Your task to perform on an android device: turn smart compose on in the gmail app Image 0: 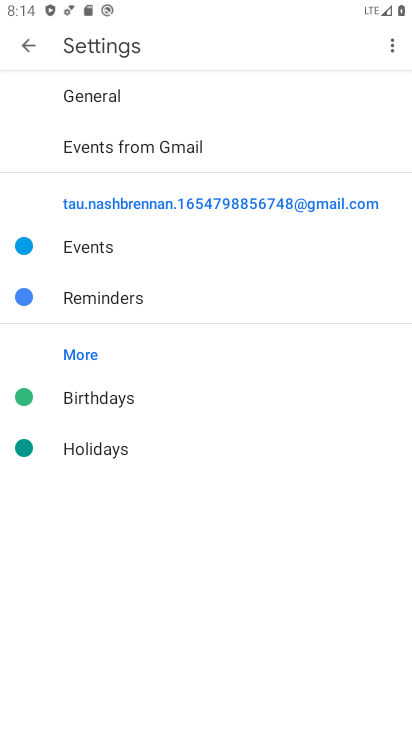
Step 0: press home button
Your task to perform on an android device: turn smart compose on in the gmail app Image 1: 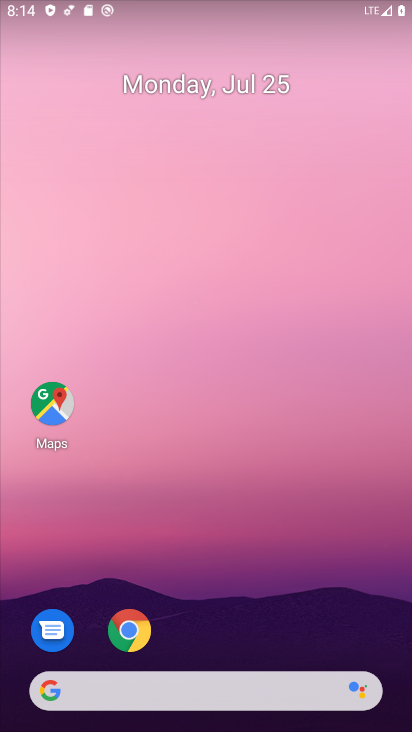
Step 1: drag from (8, 714) to (215, 164)
Your task to perform on an android device: turn smart compose on in the gmail app Image 2: 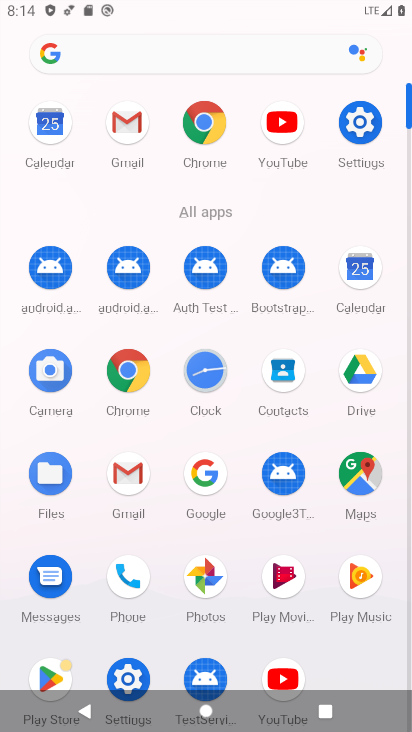
Step 2: click (109, 484)
Your task to perform on an android device: turn smart compose on in the gmail app Image 3: 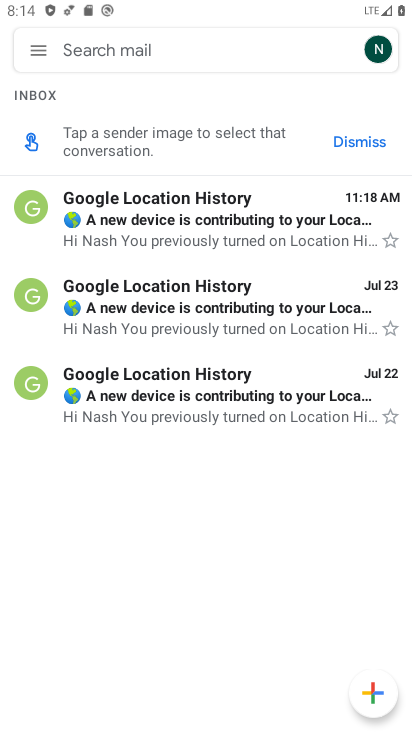
Step 3: click (33, 50)
Your task to perform on an android device: turn smart compose on in the gmail app Image 4: 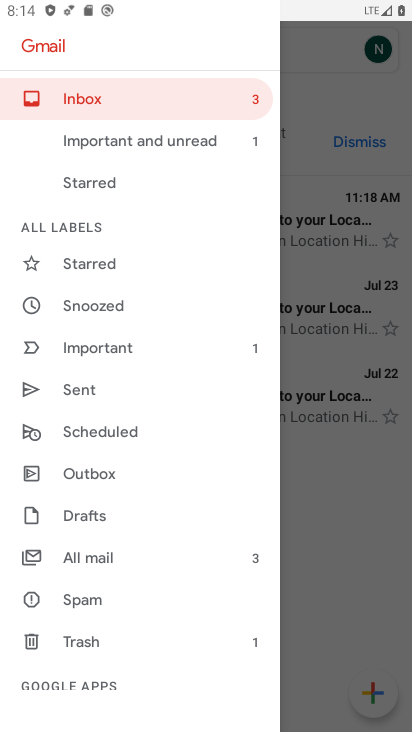
Step 4: drag from (145, 610) to (258, 245)
Your task to perform on an android device: turn smart compose on in the gmail app Image 5: 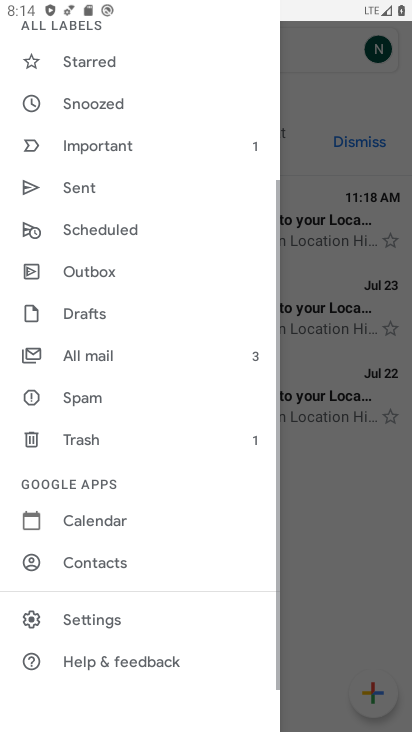
Step 5: click (106, 613)
Your task to perform on an android device: turn smart compose on in the gmail app Image 6: 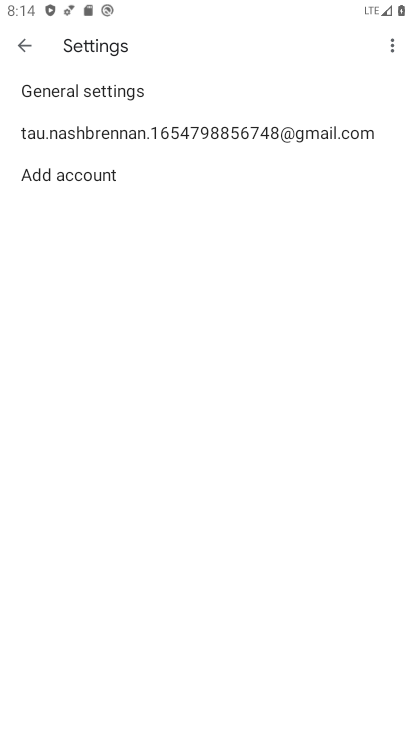
Step 6: click (66, 97)
Your task to perform on an android device: turn smart compose on in the gmail app Image 7: 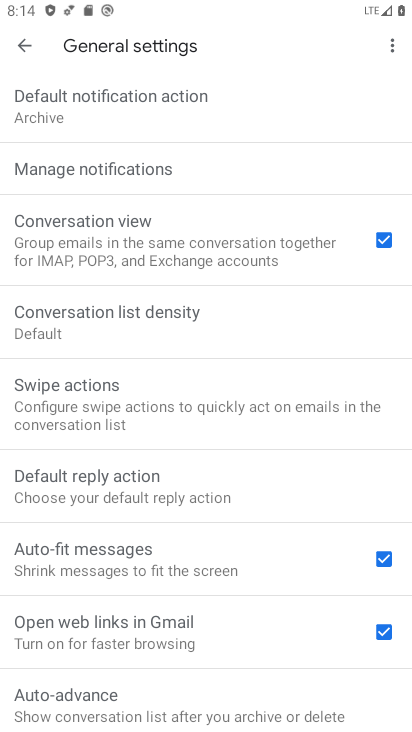
Step 7: drag from (87, 696) to (292, 86)
Your task to perform on an android device: turn smart compose on in the gmail app Image 8: 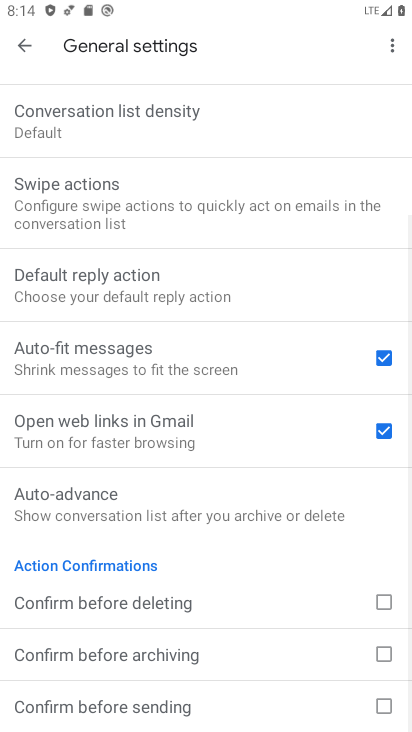
Step 8: drag from (141, 635) to (328, 99)
Your task to perform on an android device: turn smart compose on in the gmail app Image 9: 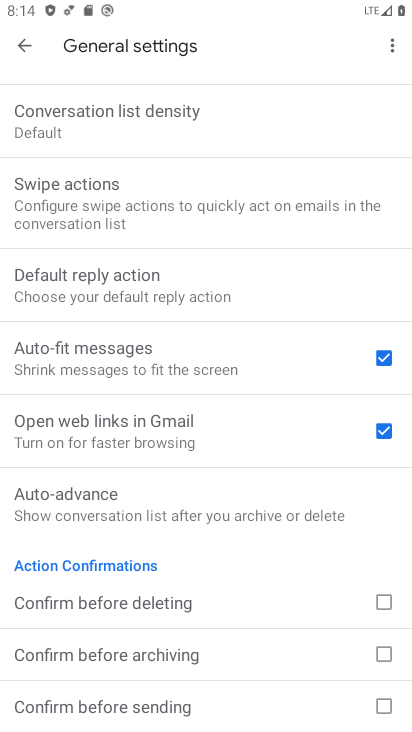
Step 9: click (13, 47)
Your task to perform on an android device: turn smart compose on in the gmail app Image 10: 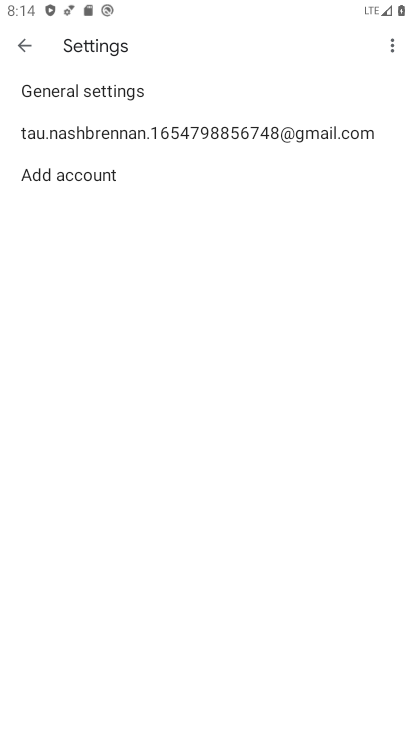
Step 10: click (44, 126)
Your task to perform on an android device: turn smart compose on in the gmail app Image 11: 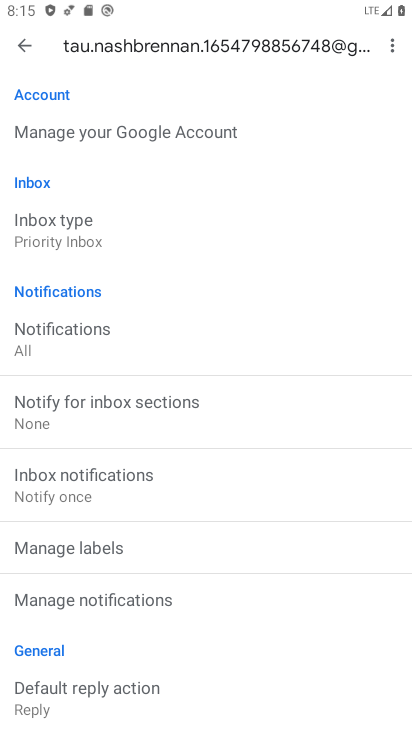
Step 11: task complete